Your task to perform on an android device: change timer sound Image 0: 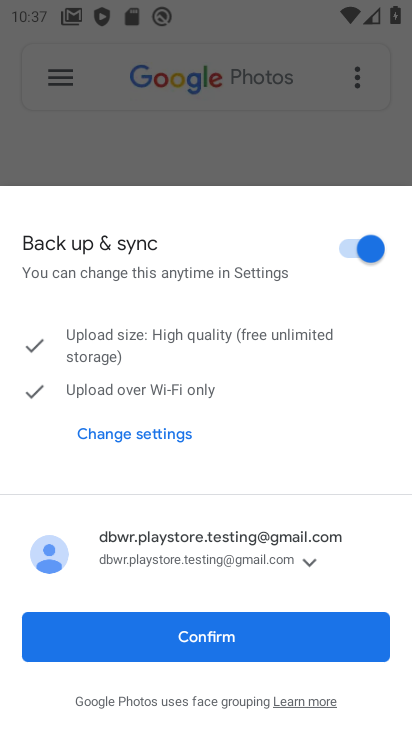
Step 0: press home button
Your task to perform on an android device: change timer sound Image 1: 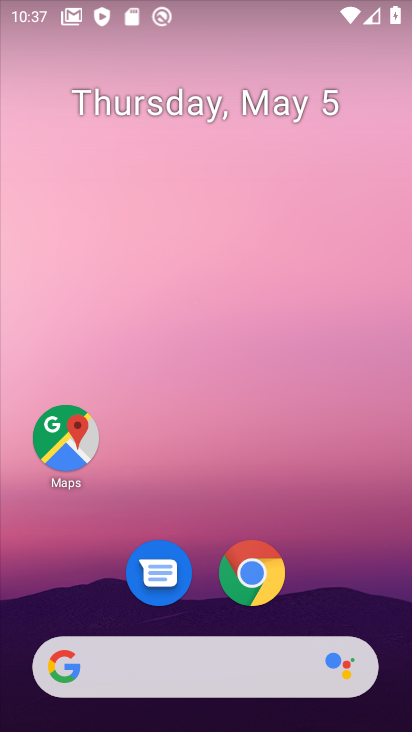
Step 1: drag from (100, 431) to (188, 269)
Your task to perform on an android device: change timer sound Image 2: 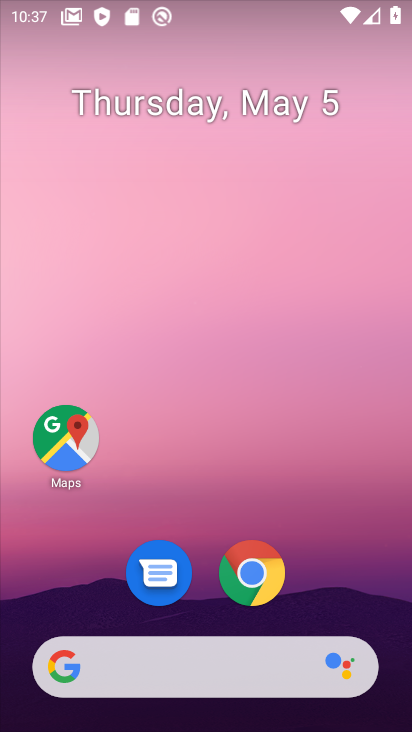
Step 2: drag from (38, 558) to (173, 258)
Your task to perform on an android device: change timer sound Image 3: 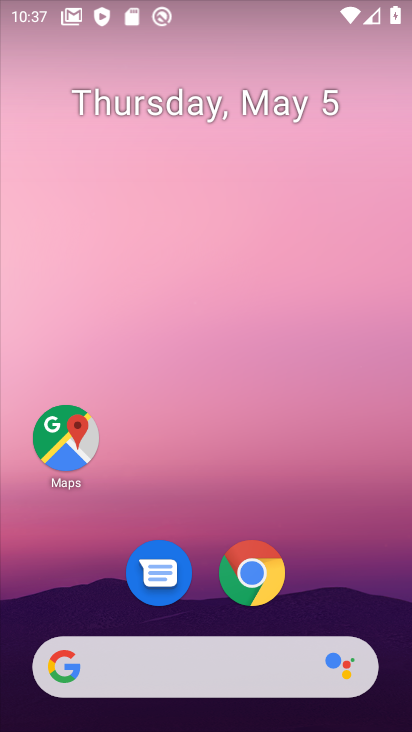
Step 3: drag from (4, 637) to (225, 118)
Your task to perform on an android device: change timer sound Image 4: 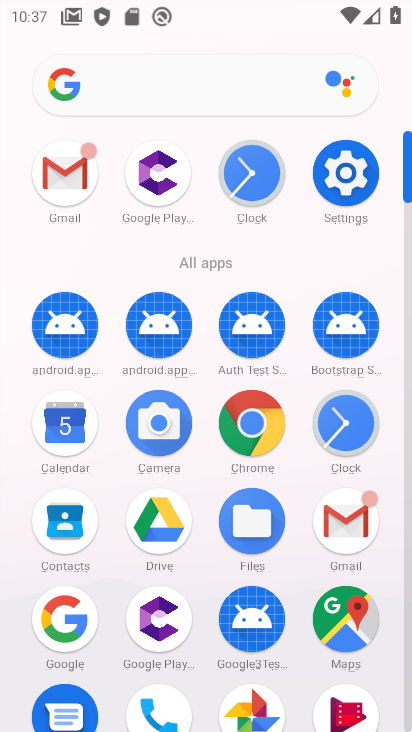
Step 4: click (325, 166)
Your task to perform on an android device: change timer sound Image 5: 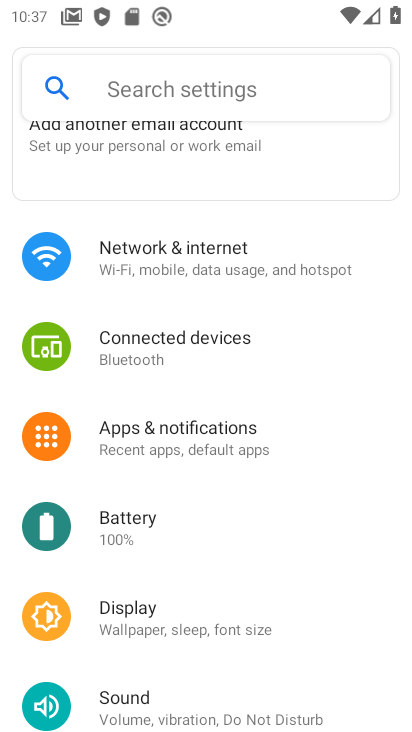
Step 5: click (184, 715)
Your task to perform on an android device: change timer sound Image 6: 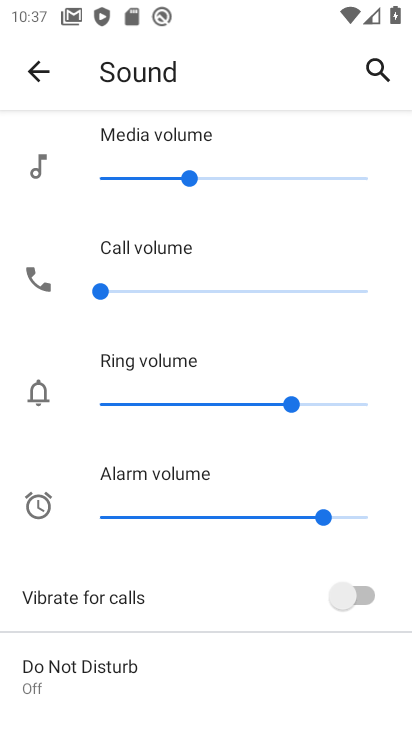
Step 6: drag from (187, 683) to (247, 324)
Your task to perform on an android device: change timer sound Image 7: 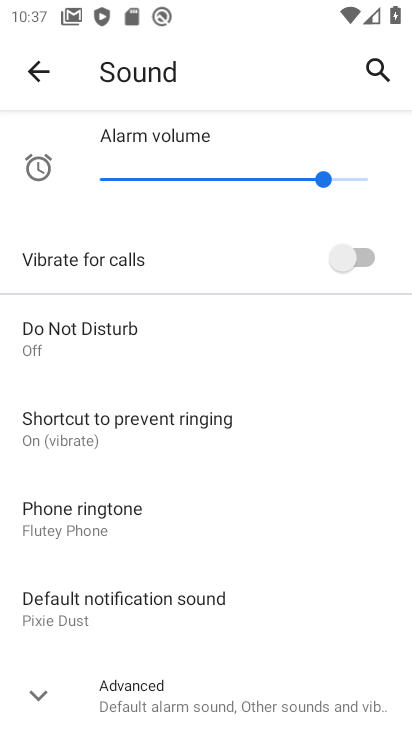
Step 7: press back button
Your task to perform on an android device: change timer sound Image 8: 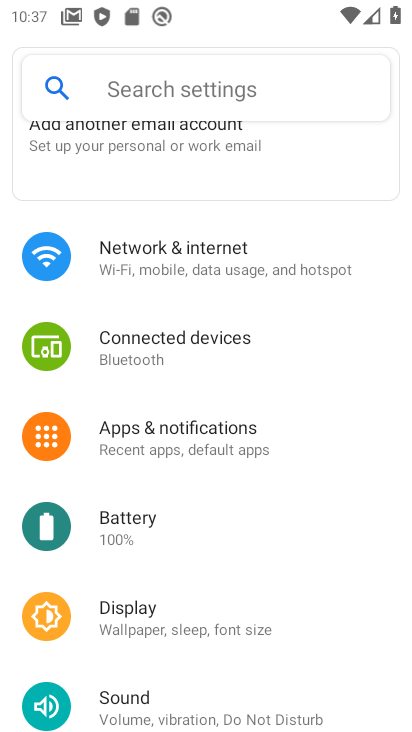
Step 8: press back button
Your task to perform on an android device: change timer sound Image 9: 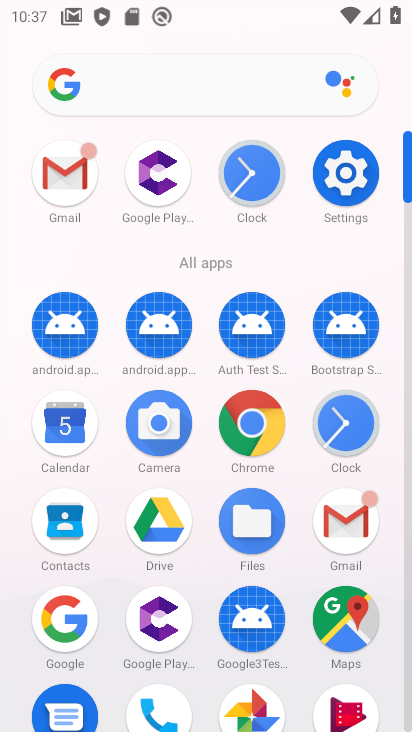
Step 9: click (317, 419)
Your task to perform on an android device: change timer sound Image 10: 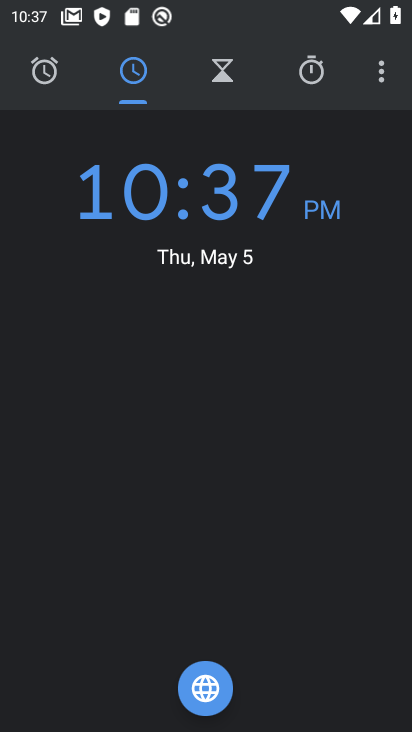
Step 10: click (386, 74)
Your task to perform on an android device: change timer sound Image 11: 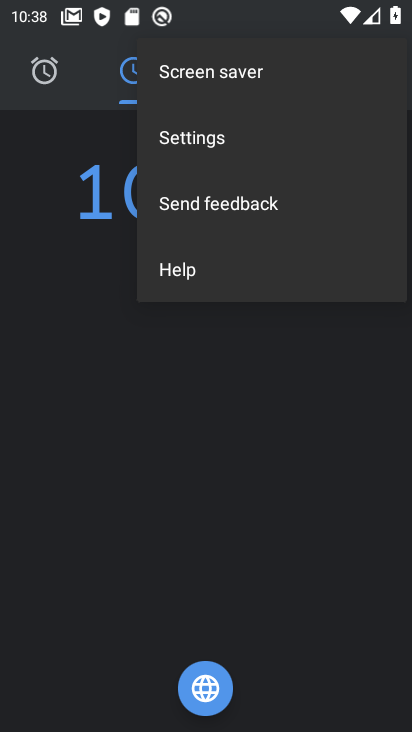
Step 11: click (194, 141)
Your task to perform on an android device: change timer sound Image 12: 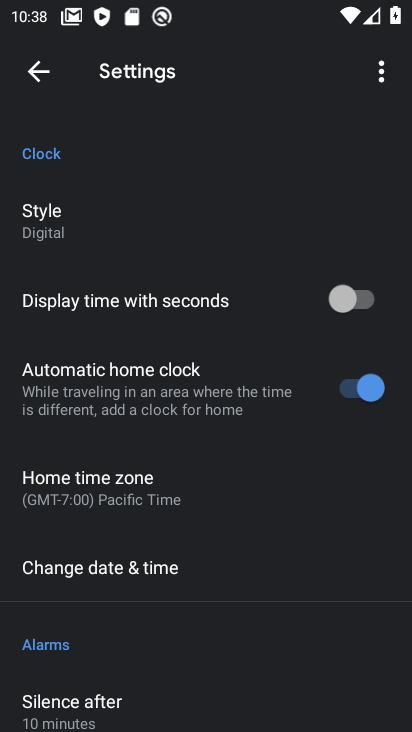
Step 12: drag from (132, 672) to (234, 238)
Your task to perform on an android device: change timer sound Image 13: 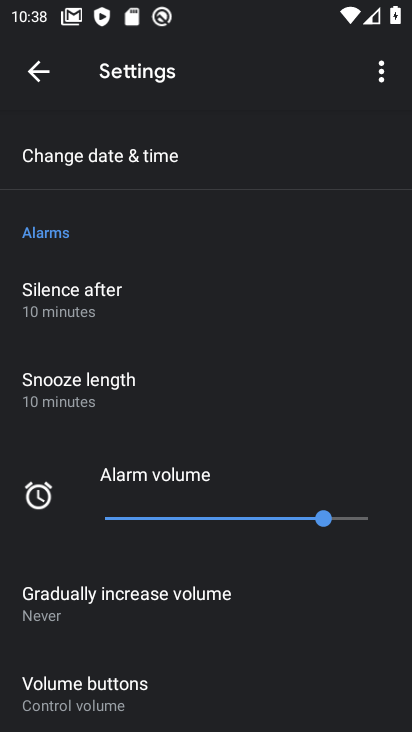
Step 13: drag from (172, 696) to (239, 313)
Your task to perform on an android device: change timer sound Image 14: 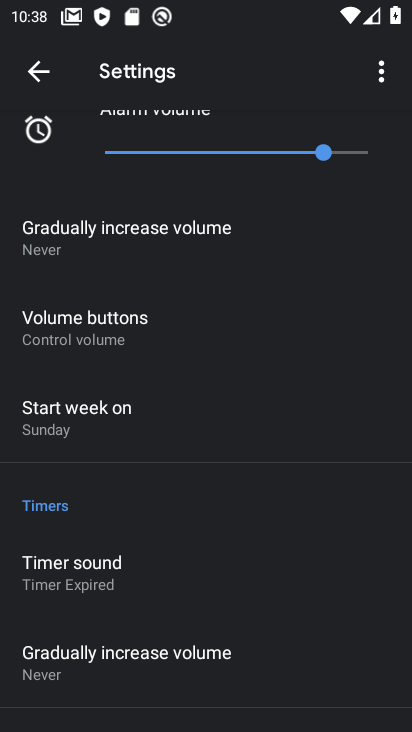
Step 14: click (94, 555)
Your task to perform on an android device: change timer sound Image 15: 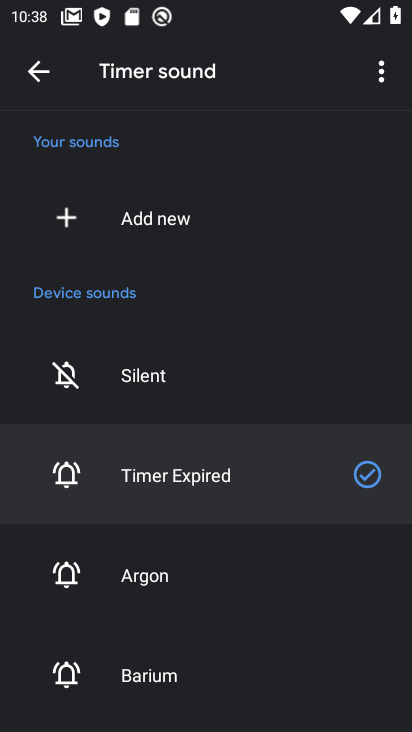
Step 15: click (126, 575)
Your task to perform on an android device: change timer sound Image 16: 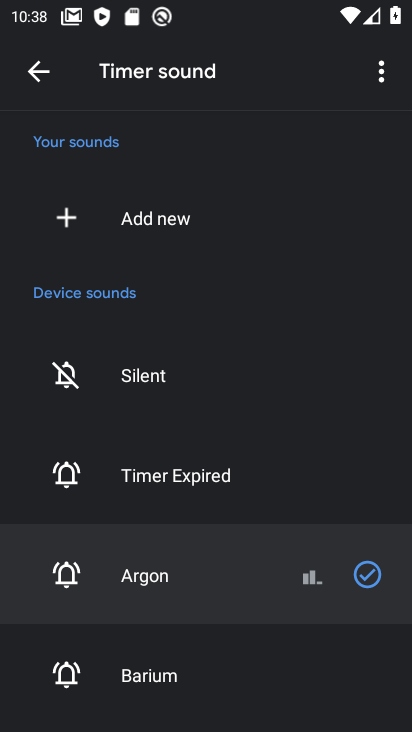
Step 16: task complete